Your task to perform on an android device: Open Google Chrome and open the bookmarks view Image 0: 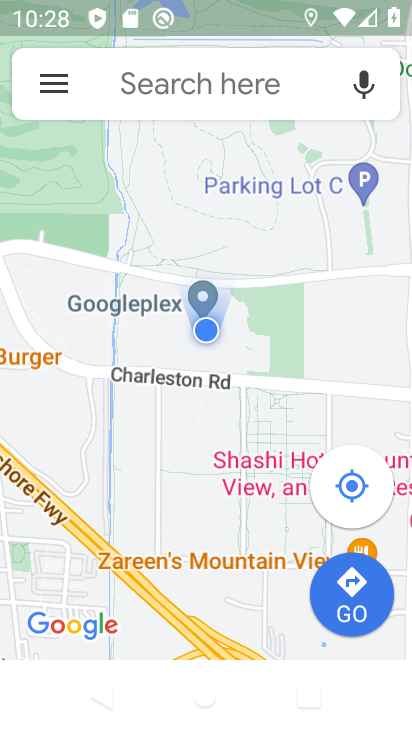
Step 0: press home button
Your task to perform on an android device: Open Google Chrome and open the bookmarks view Image 1: 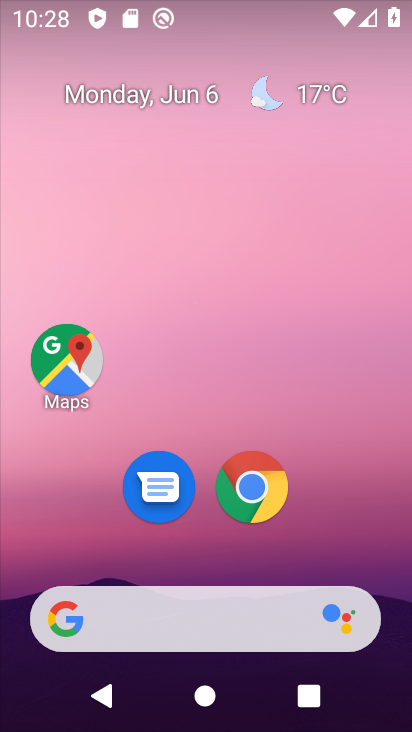
Step 1: click (245, 481)
Your task to perform on an android device: Open Google Chrome and open the bookmarks view Image 2: 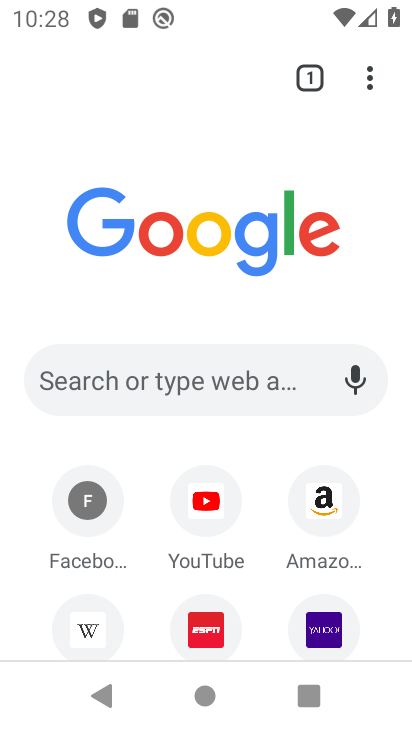
Step 2: click (369, 80)
Your task to perform on an android device: Open Google Chrome and open the bookmarks view Image 3: 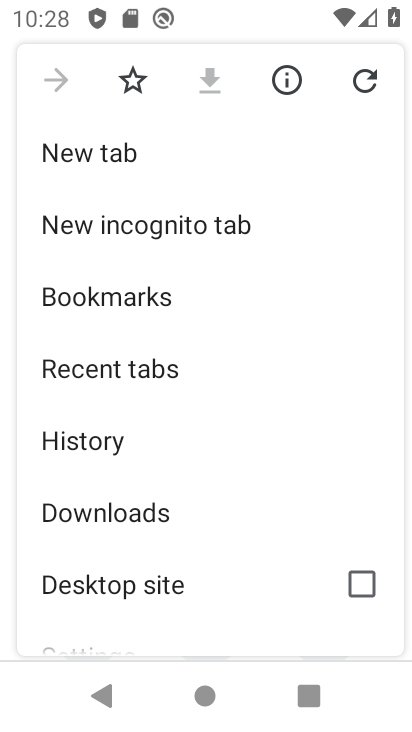
Step 3: click (103, 301)
Your task to perform on an android device: Open Google Chrome and open the bookmarks view Image 4: 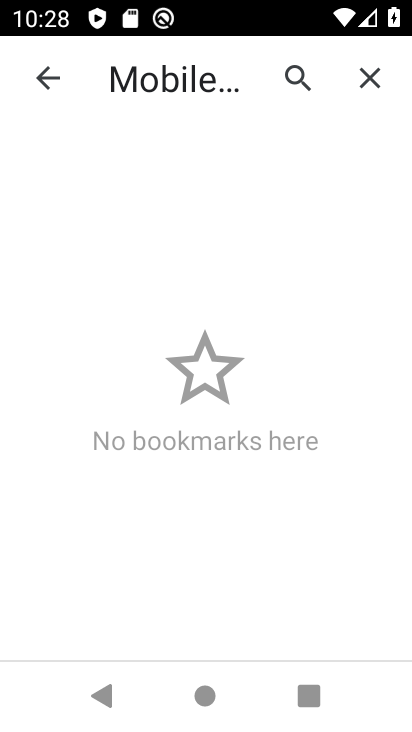
Step 4: task complete